Your task to perform on an android device: change alarm snooze length Image 0: 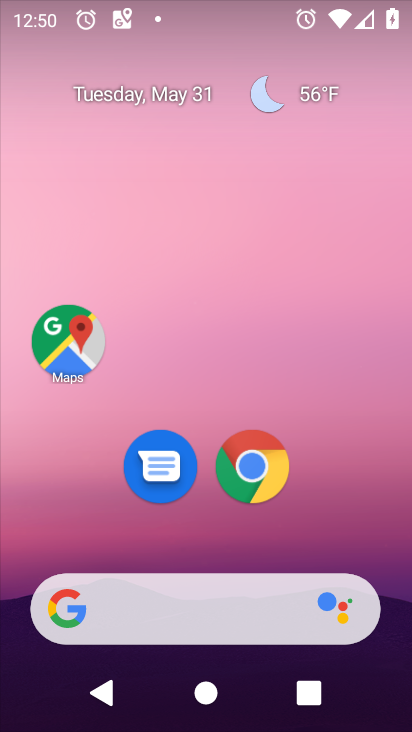
Step 0: drag from (176, 605) to (172, 45)
Your task to perform on an android device: change alarm snooze length Image 1: 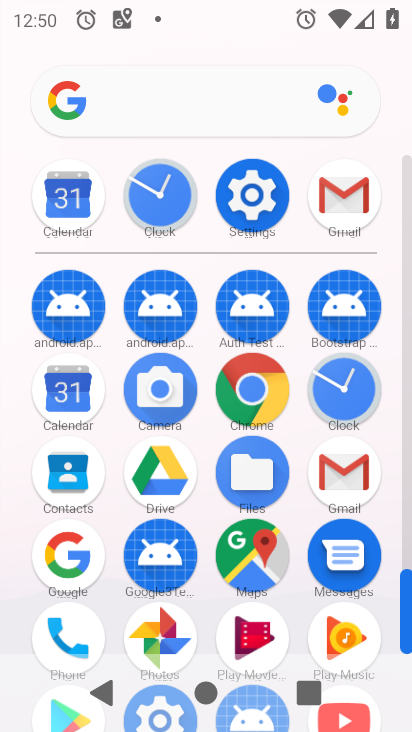
Step 1: click (338, 393)
Your task to perform on an android device: change alarm snooze length Image 2: 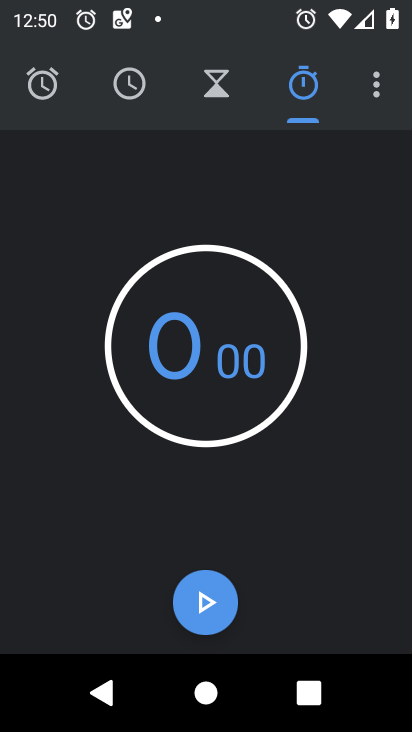
Step 2: click (369, 91)
Your task to perform on an android device: change alarm snooze length Image 3: 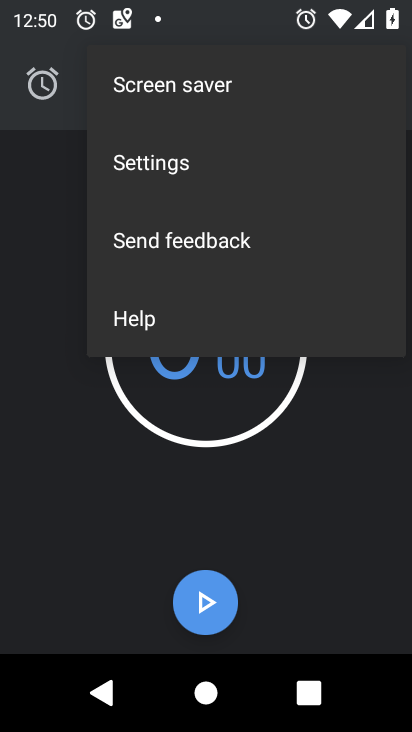
Step 3: click (187, 166)
Your task to perform on an android device: change alarm snooze length Image 4: 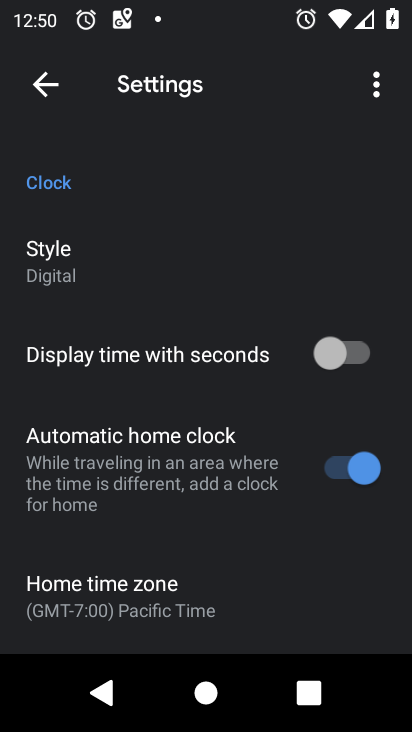
Step 4: drag from (157, 514) to (121, 20)
Your task to perform on an android device: change alarm snooze length Image 5: 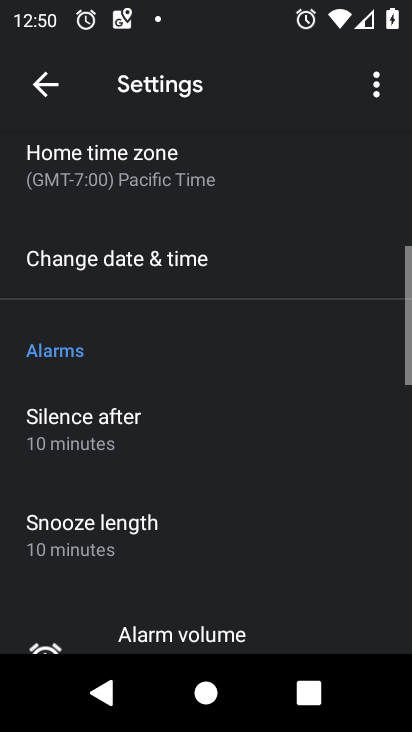
Step 5: click (132, 504)
Your task to perform on an android device: change alarm snooze length Image 6: 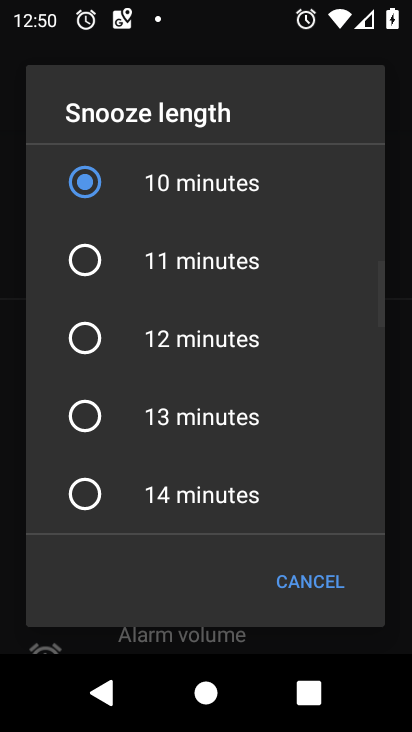
Step 6: click (130, 347)
Your task to perform on an android device: change alarm snooze length Image 7: 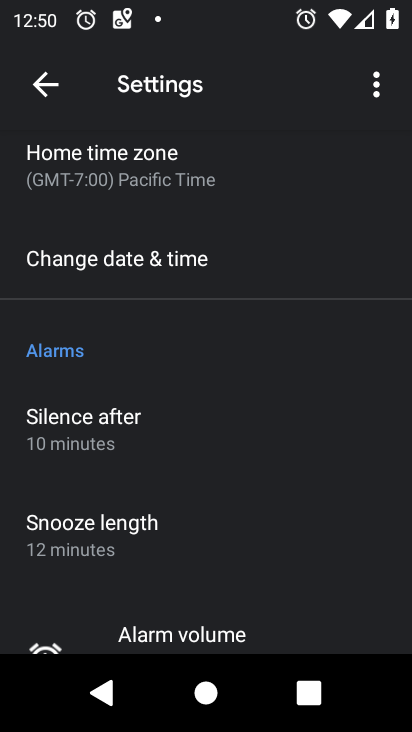
Step 7: task complete